Your task to perform on an android device: change notification settings in the gmail app Image 0: 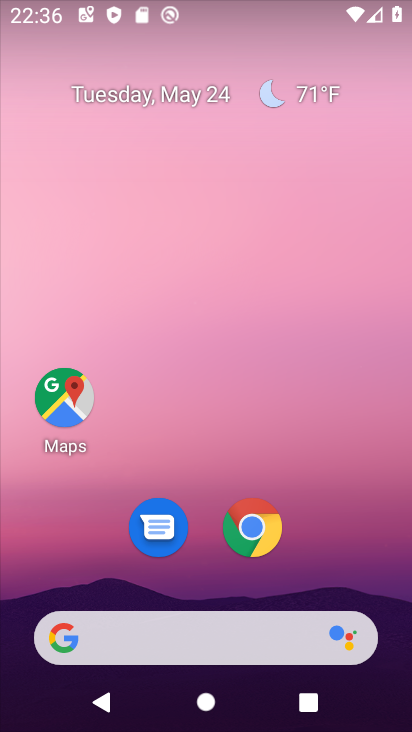
Step 0: drag from (335, 583) to (343, 24)
Your task to perform on an android device: change notification settings in the gmail app Image 1: 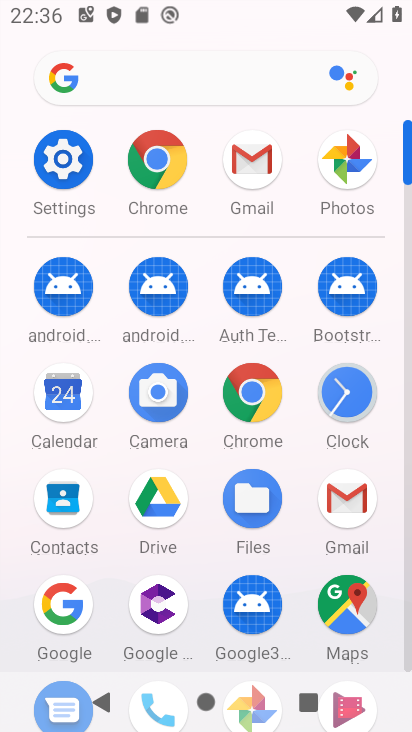
Step 1: click (245, 168)
Your task to perform on an android device: change notification settings in the gmail app Image 2: 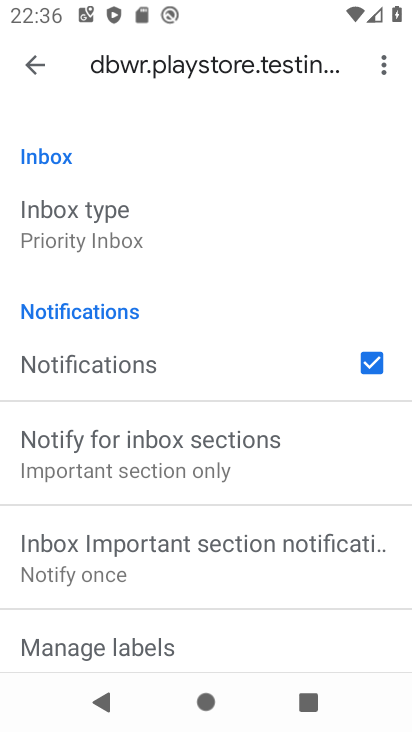
Step 2: drag from (133, 599) to (160, 355)
Your task to perform on an android device: change notification settings in the gmail app Image 3: 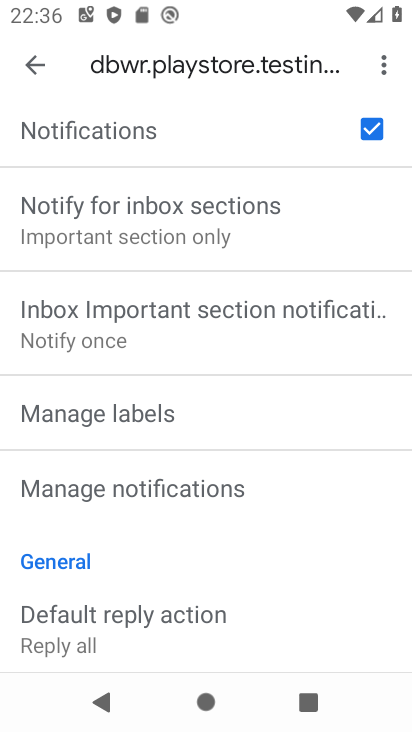
Step 3: click (149, 500)
Your task to perform on an android device: change notification settings in the gmail app Image 4: 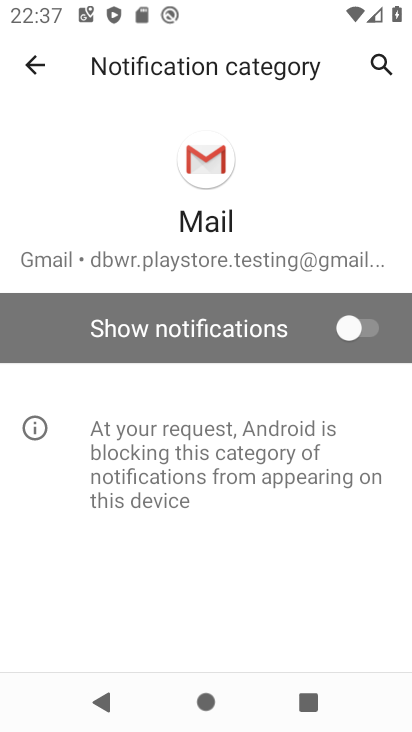
Step 4: click (347, 321)
Your task to perform on an android device: change notification settings in the gmail app Image 5: 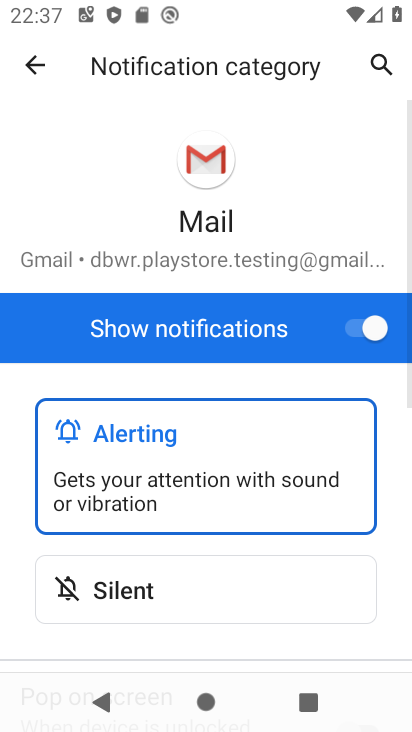
Step 5: task complete